Your task to perform on an android device: turn off javascript in the chrome app Image 0: 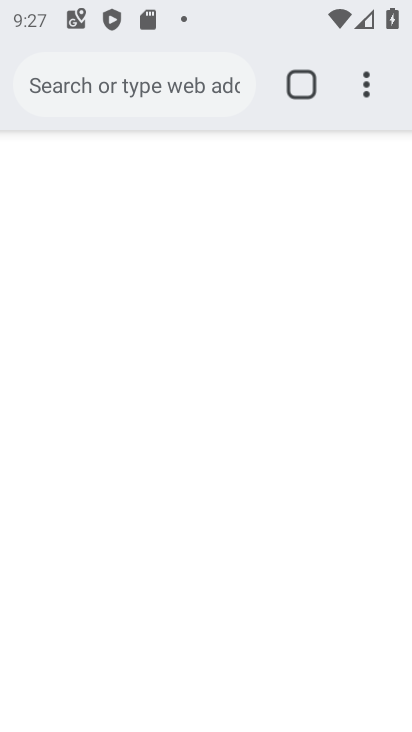
Step 0: click (234, 42)
Your task to perform on an android device: turn off javascript in the chrome app Image 1: 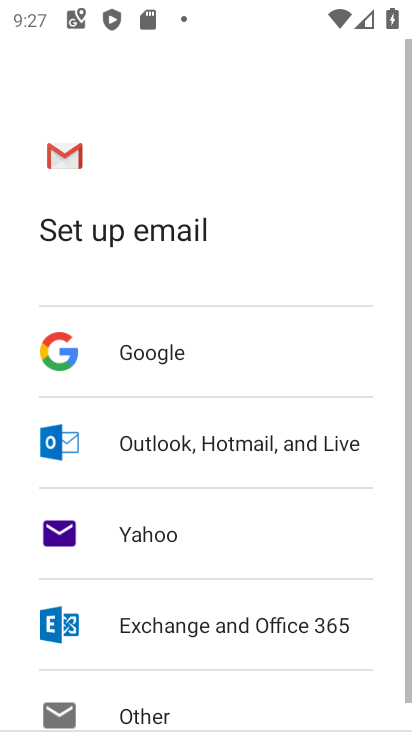
Step 1: press back button
Your task to perform on an android device: turn off javascript in the chrome app Image 2: 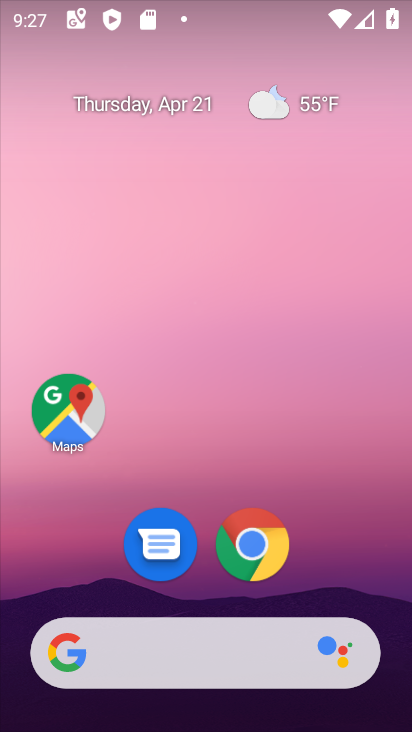
Step 2: click (246, 548)
Your task to perform on an android device: turn off javascript in the chrome app Image 3: 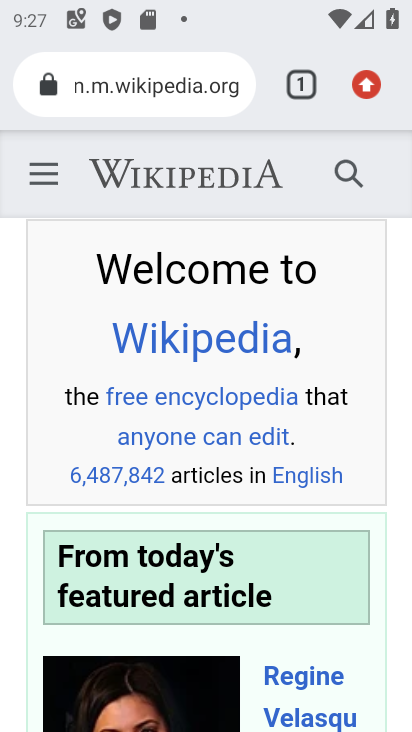
Step 3: drag from (361, 93) to (80, 576)
Your task to perform on an android device: turn off javascript in the chrome app Image 4: 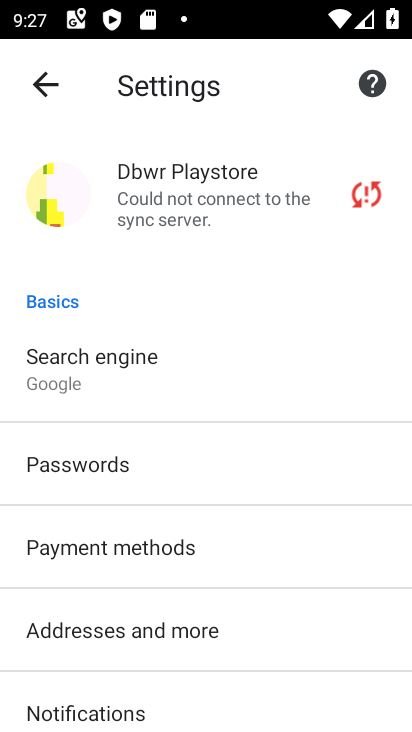
Step 4: drag from (181, 557) to (208, 248)
Your task to perform on an android device: turn off javascript in the chrome app Image 5: 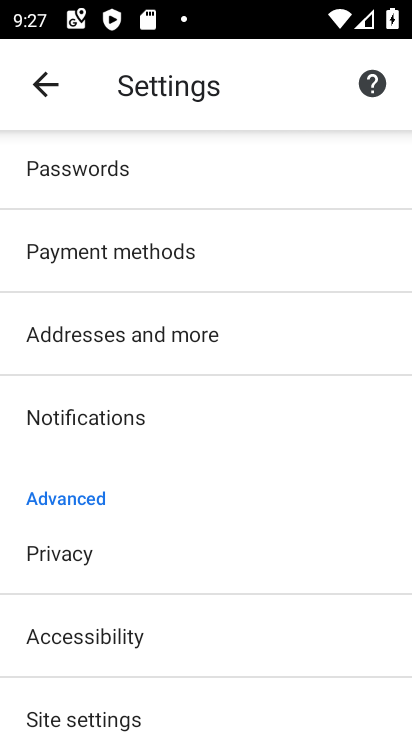
Step 5: drag from (242, 596) to (266, 173)
Your task to perform on an android device: turn off javascript in the chrome app Image 6: 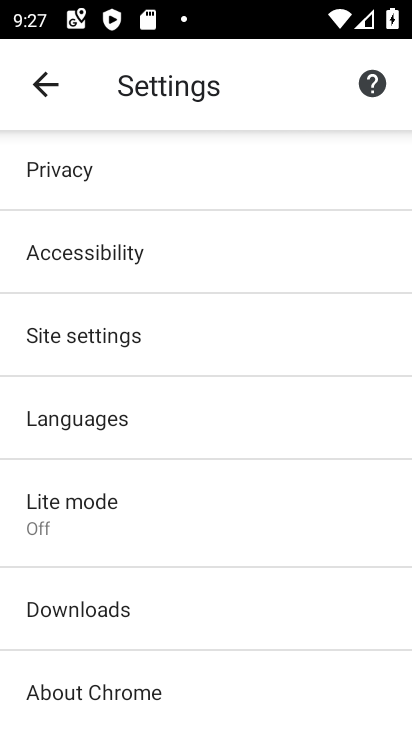
Step 6: click (189, 324)
Your task to perform on an android device: turn off javascript in the chrome app Image 7: 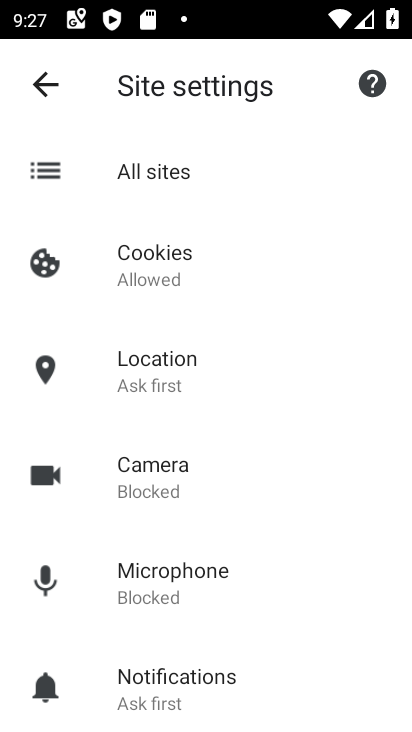
Step 7: drag from (270, 572) to (285, 261)
Your task to perform on an android device: turn off javascript in the chrome app Image 8: 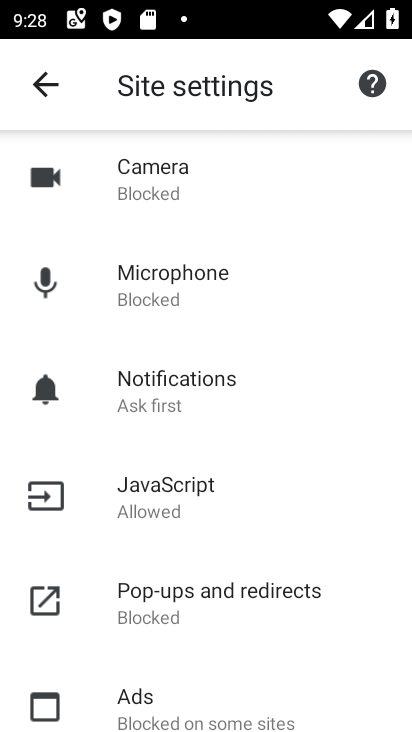
Step 8: click (198, 509)
Your task to perform on an android device: turn off javascript in the chrome app Image 9: 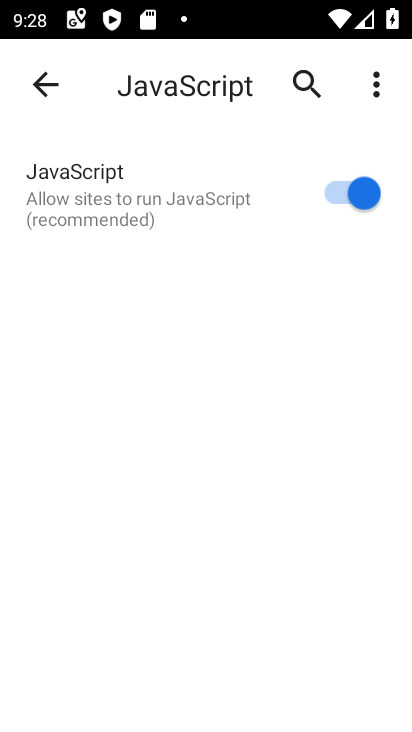
Step 9: click (356, 168)
Your task to perform on an android device: turn off javascript in the chrome app Image 10: 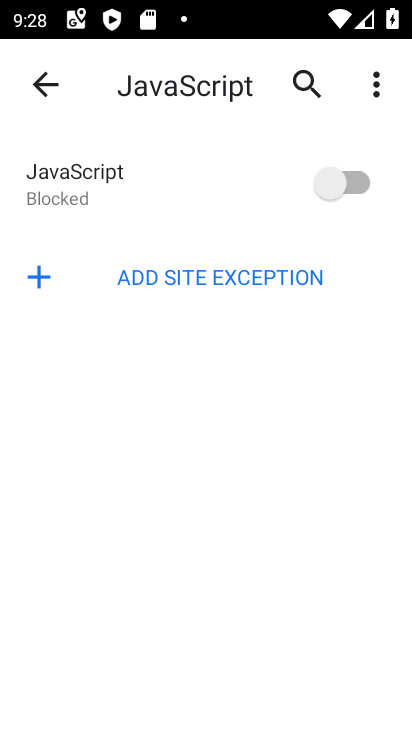
Step 10: task complete